Your task to perform on an android device: find snoozed emails in the gmail app Image 0: 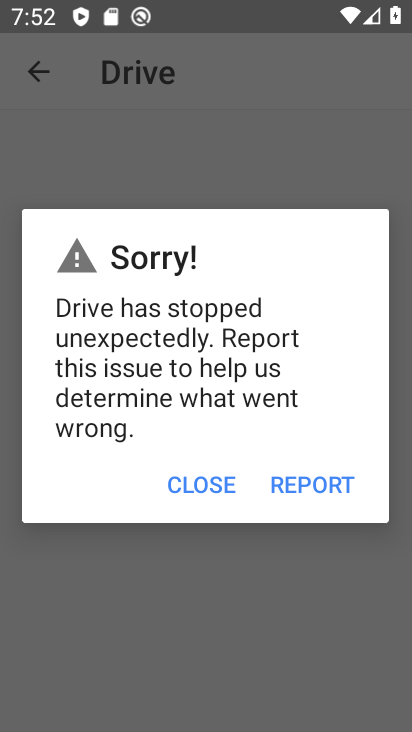
Step 0: press home button
Your task to perform on an android device: find snoozed emails in the gmail app Image 1: 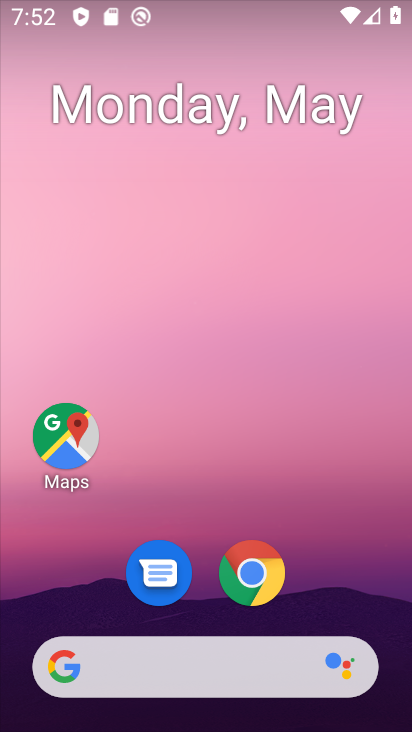
Step 1: drag from (388, 565) to (276, 9)
Your task to perform on an android device: find snoozed emails in the gmail app Image 2: 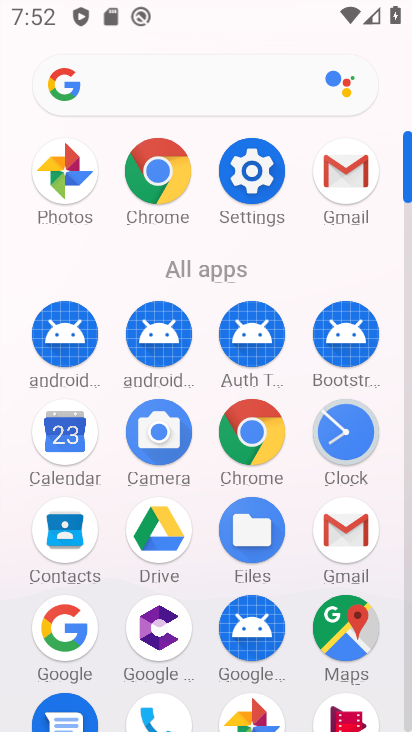
Step 2: click (359, 168)
Your task to perform on an android device: find snoozed emails in the gmail app Image 3: 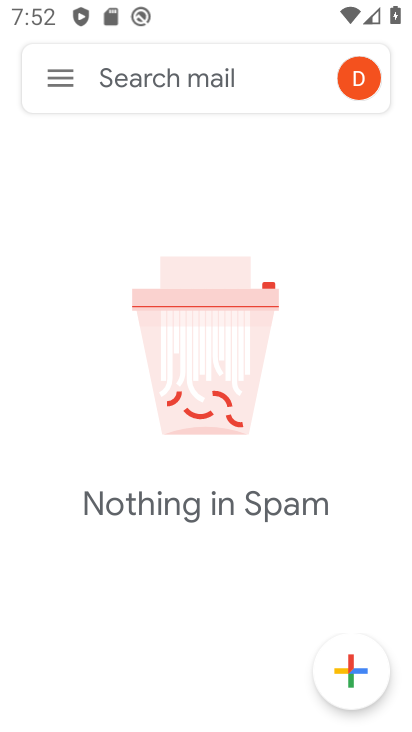
Step 3: click (82, 76)
Your task to perform on an android device: find snoozed emails in the gmail app Image 4: 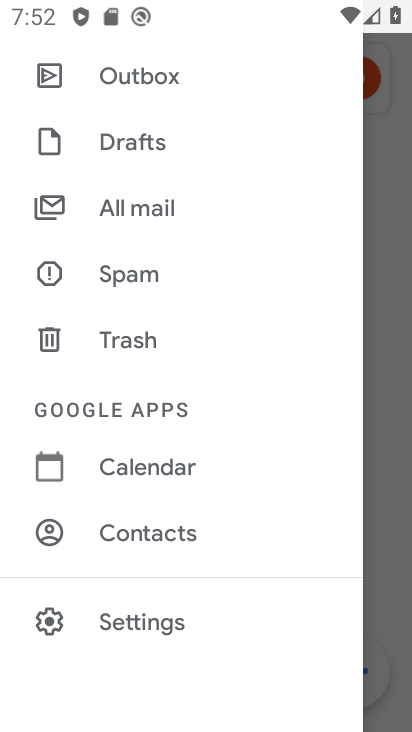
Step 4: drag from (129, 150) to (185, 444)
Your task to perform on an android device: find snoozed emails in the gmail app Image 5: 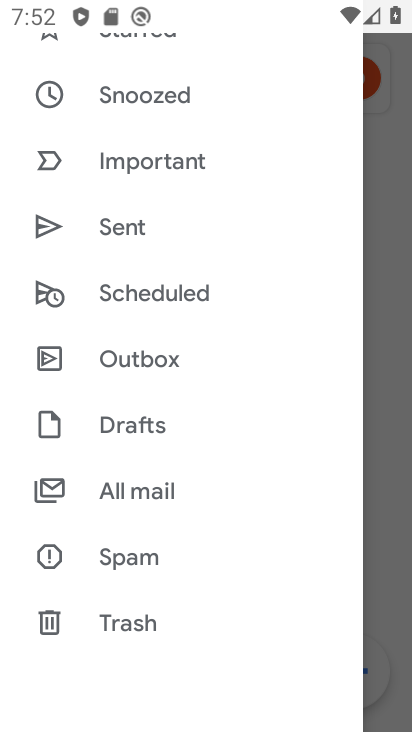
Step 5: click (131, 104)
Your task to perform on an android device: find snoozed emails in the gmail app Image 6: 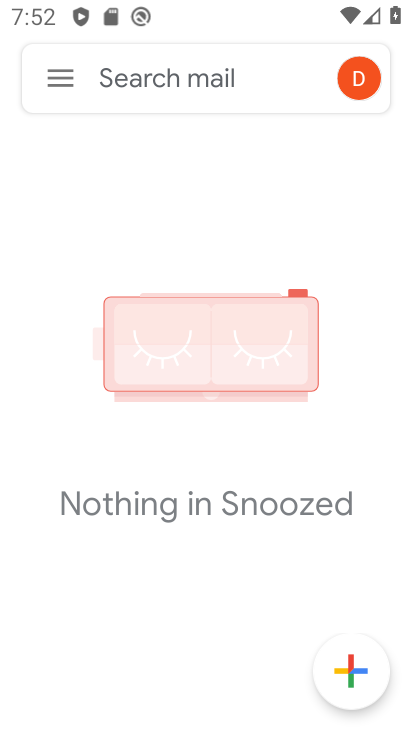
Step 6: task complete